Your task to perform on an android device: Search for "apple airpods" on ebay.com, select the first entry, add it to the cart, then select checkout. Image 0: 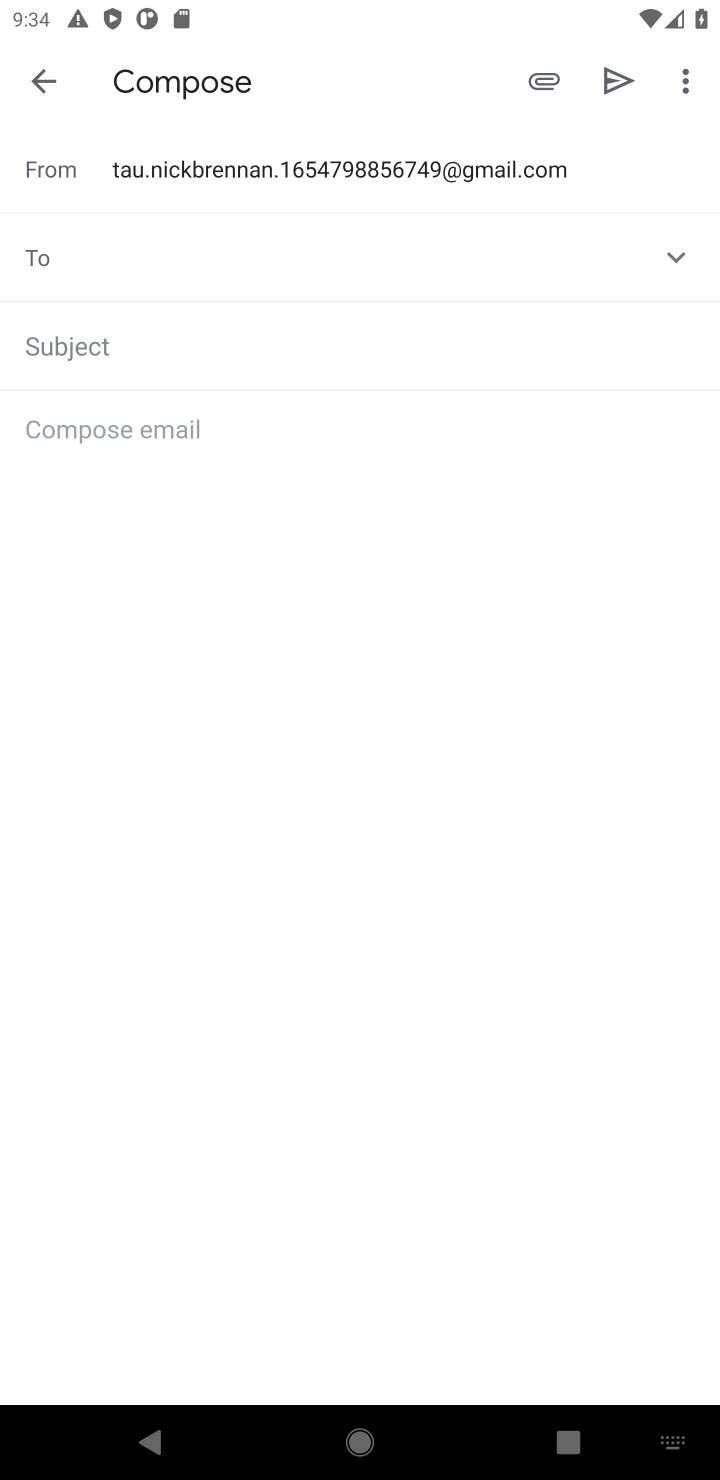
Step 0: press home button
Your task to perform on an android device: Search for "apple airpods" on ebay.com, select the first entry, add it to the cart, then select checkout. Image 1: 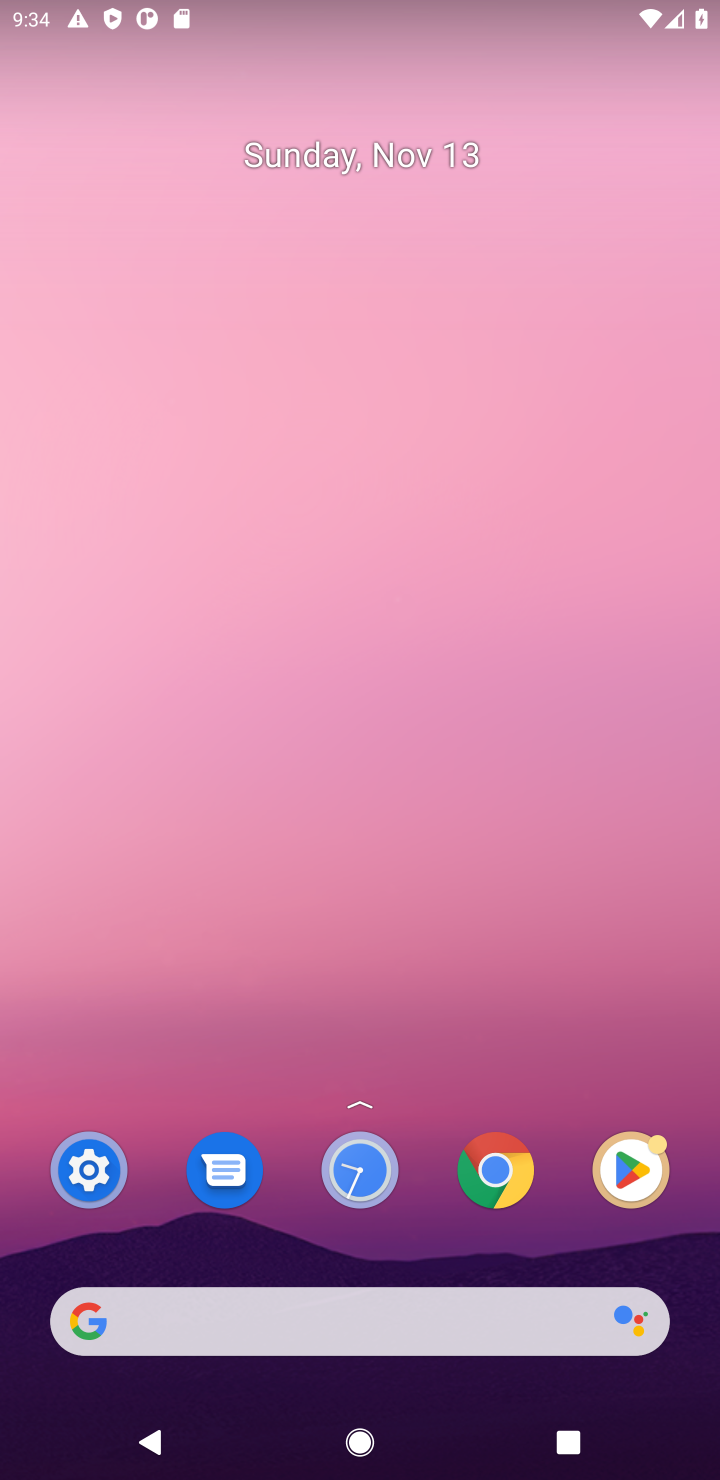
Step 1: click (367, 1357)
Your task to perform on an android device: Search for "apple airpods" on ebay.com, select the first entry, add it to the cart, then select checkout. Image 2: 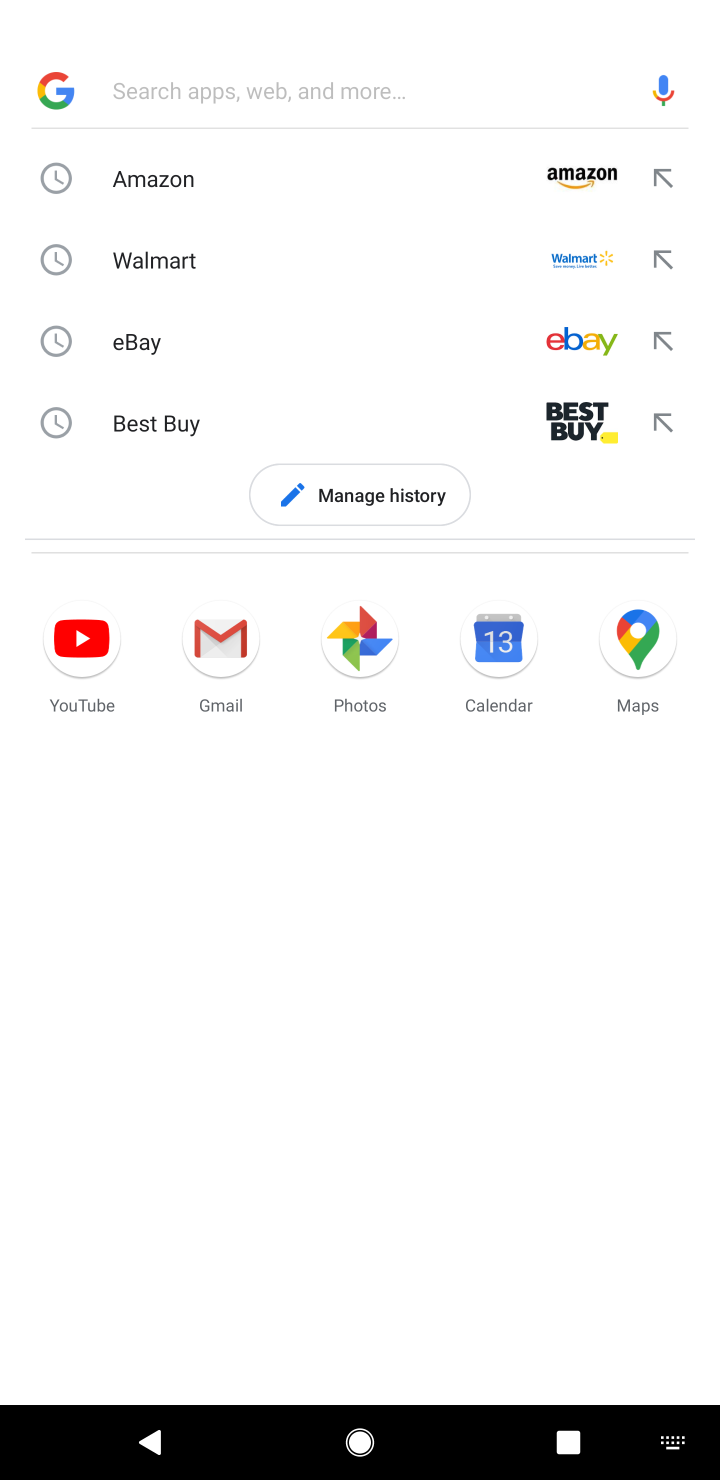
Step 2: click (225, 339)
Your task to perform on an android device: Search for "apple airpods" on ebay.com, select the first entry, add it to the cart, then select checkout. Image 3: 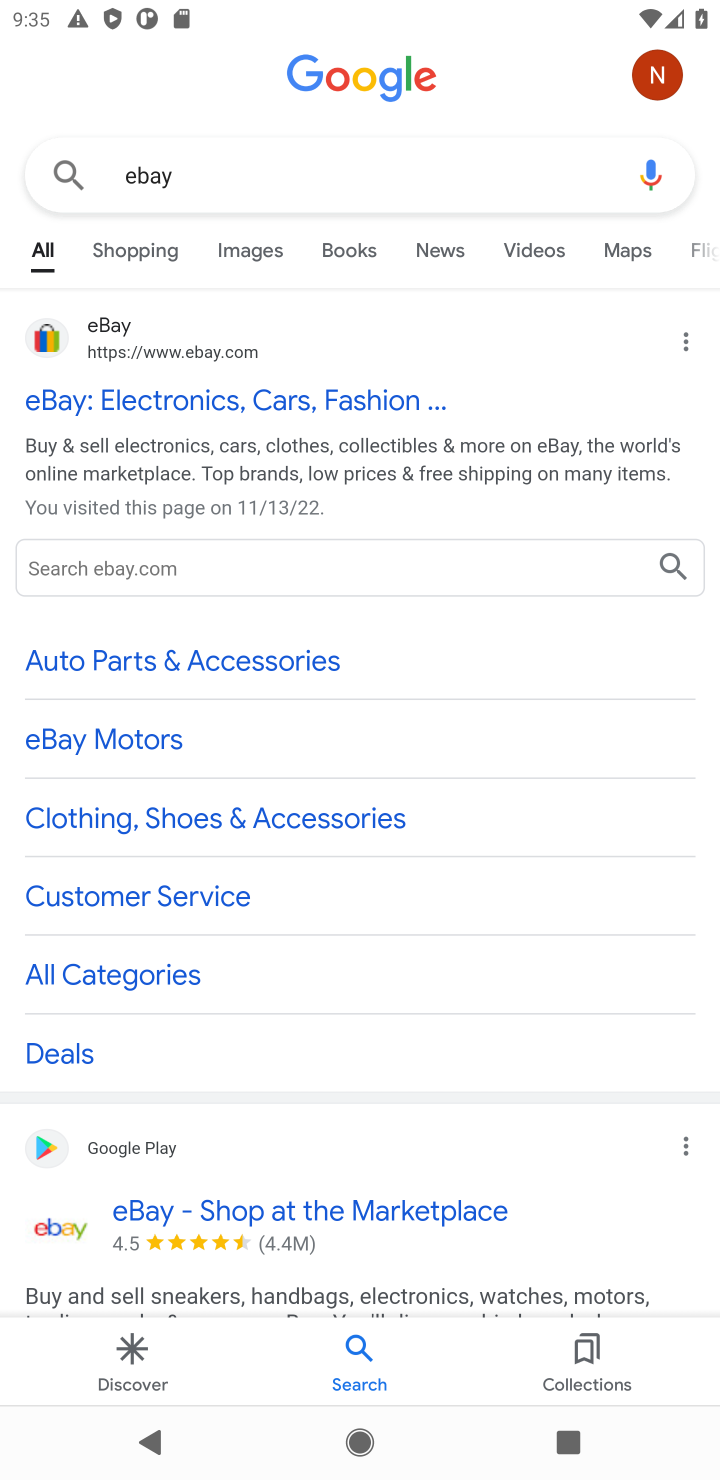
Step 3: click (39, 387)
Your task to perform on an android device: Search for "apple airpods" on ebay.com, select the first entry, add it to the cart, then select checkout. Image 4: 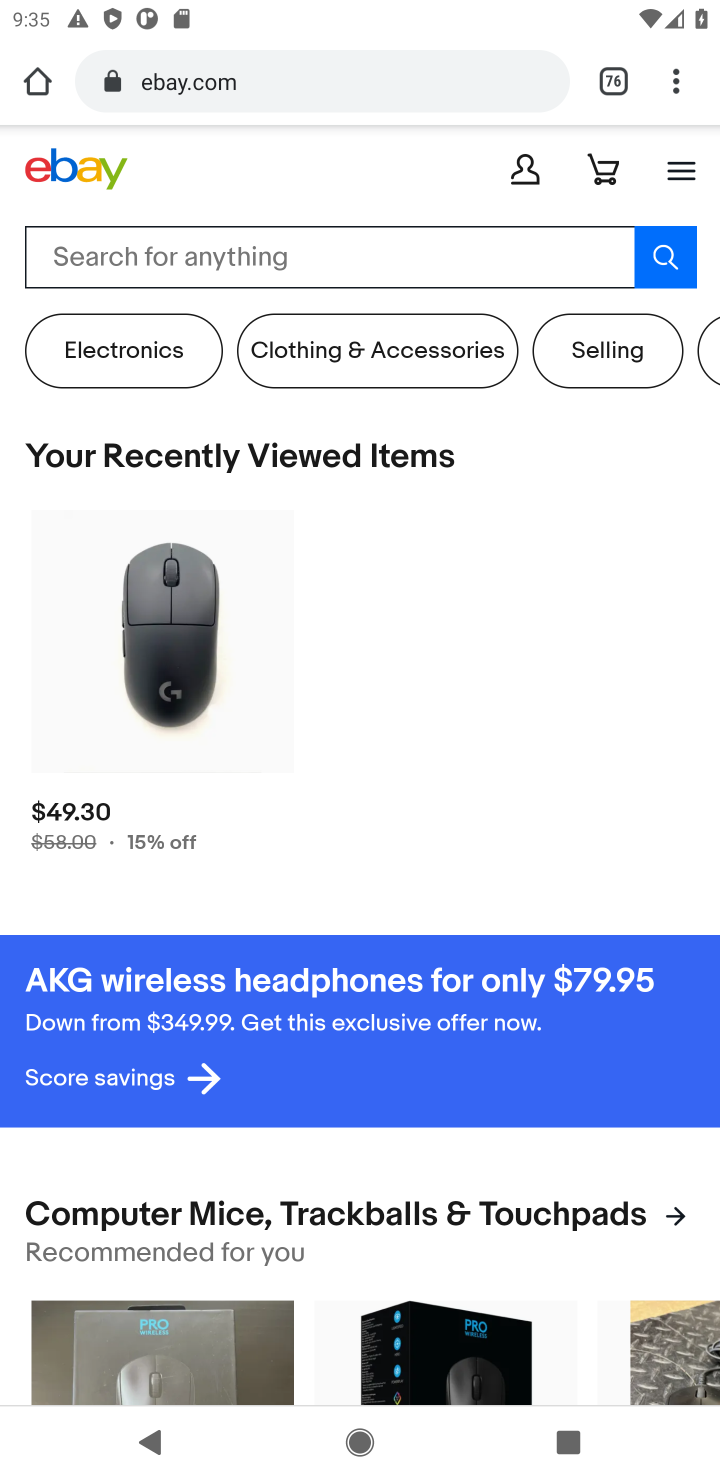
Step 4: task complete